Your task to perform on an android device: open sync settings in chrome Image 0: 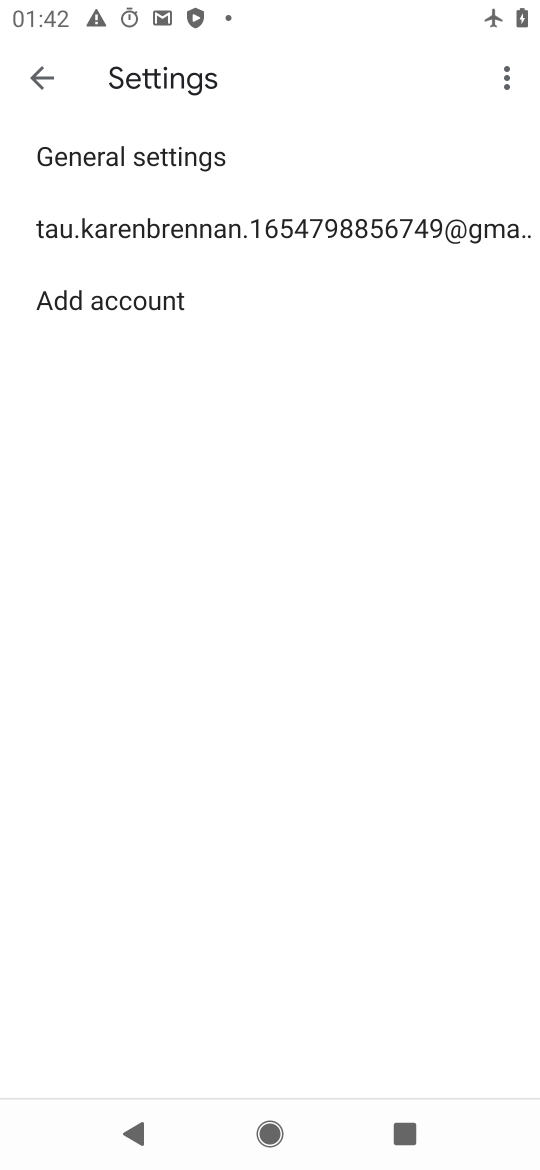
Step 0: press home button
Your task to perform on an android device: open sync settings in chrome Image 1: 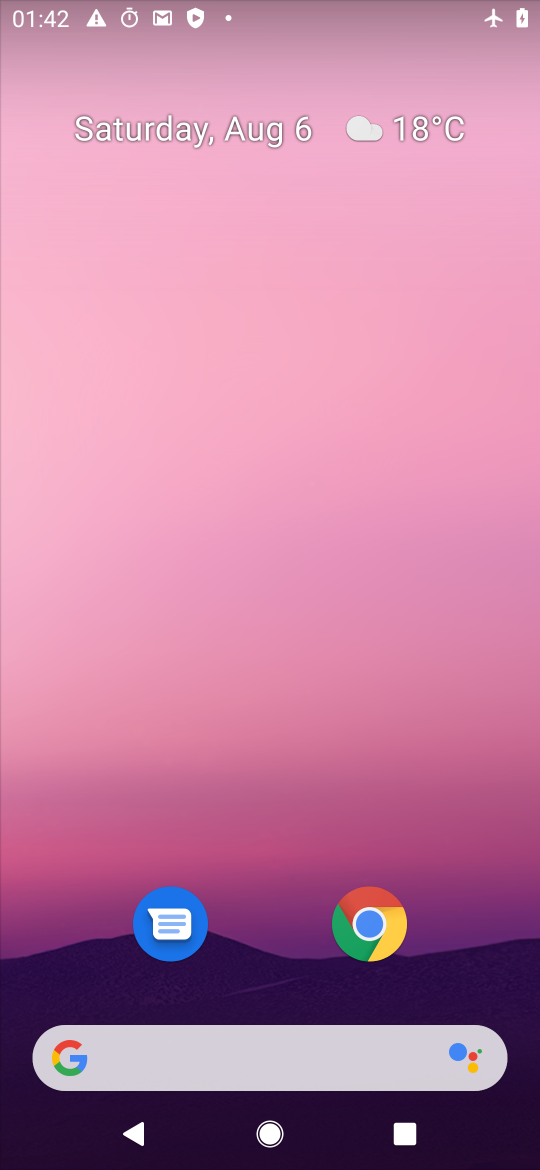
Step 1: drag from (246, 1070) to (306, 27)
Your task to perform on an android device: open sync settings in chrome Image 2: 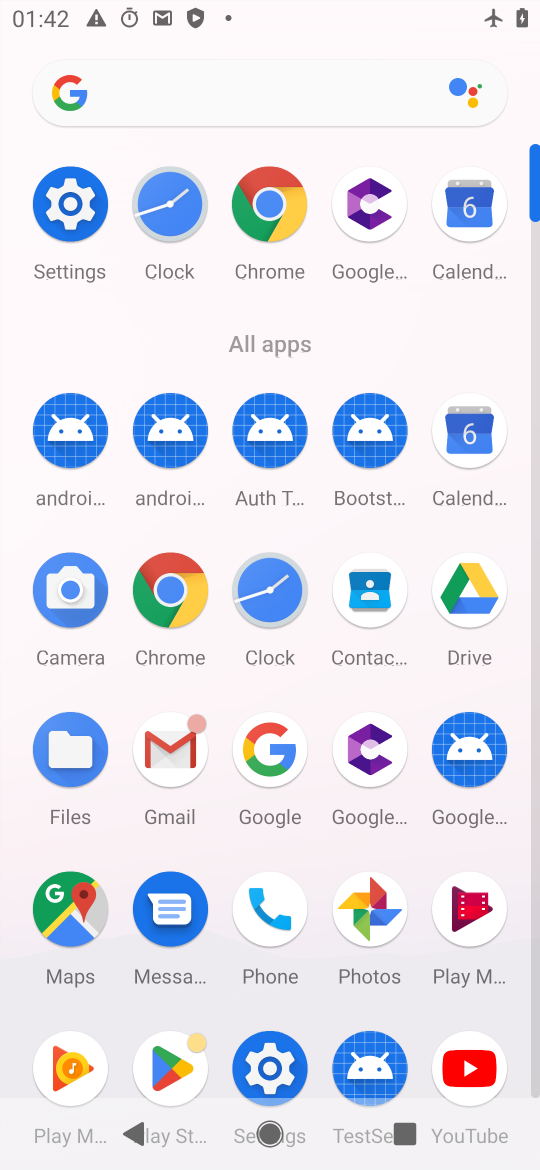
Step 2: click (162, 589)
Your task to perform on an android device: open sync settings in chrome Image 3: 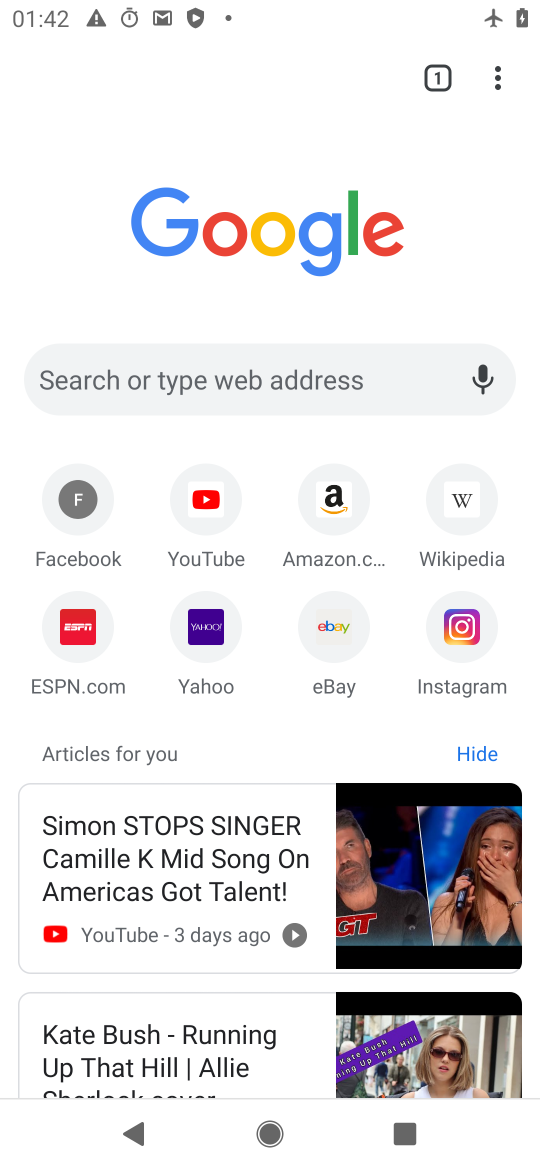
Step 3: click (497, 74)
Your task to perform on an android device: open sync settings in chrome Image 4: 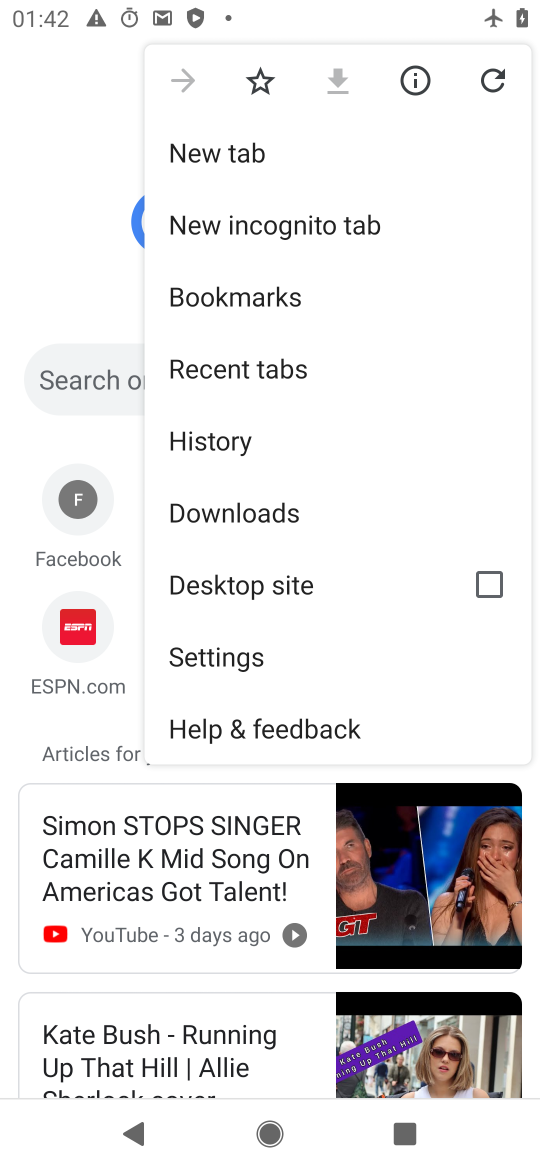
Step 4: click (230, 642)
Your task to perform on an android device: open sync settings in chrome Image 5: 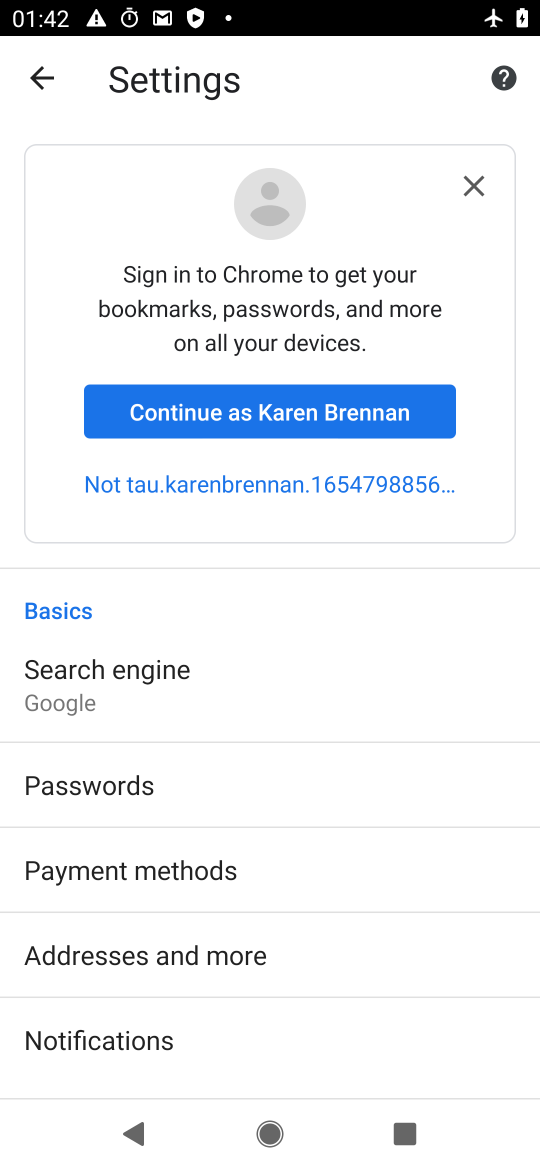
Step 5: drag from (321, 1028) to (258, 202)
Your task to perform on an android device: open sync settings in chrome Image 6: 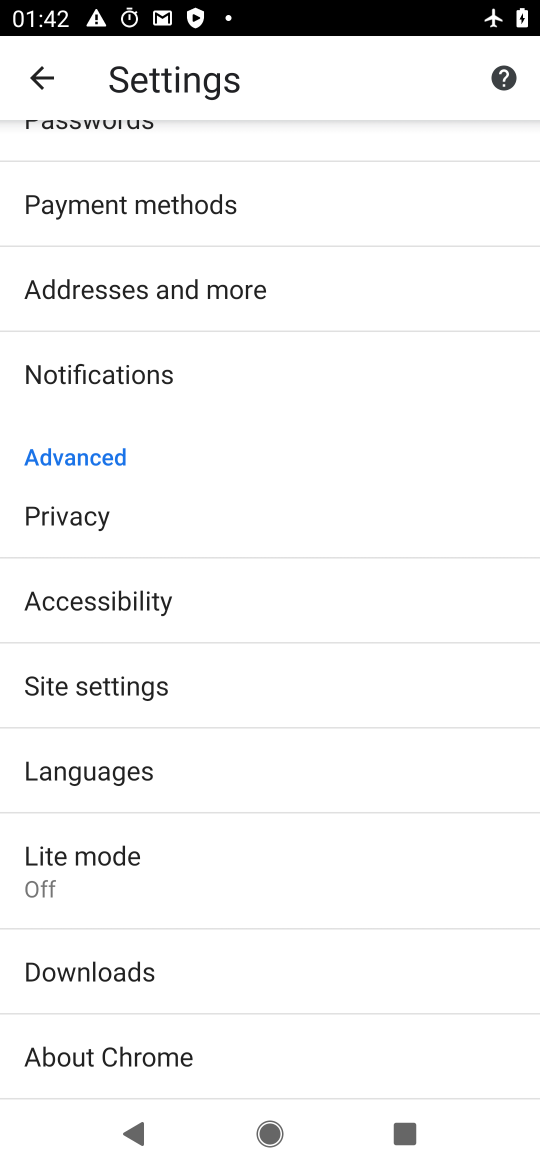
Step 6: click (143, 689)
Your task to perform on an android device: open sync settings in chrome Image 7: 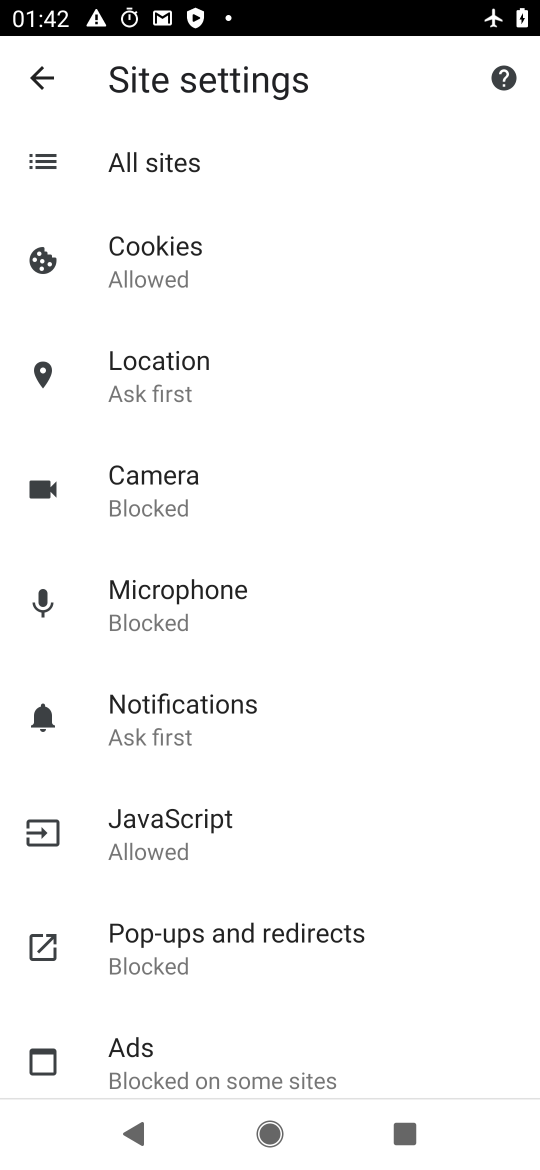
Step 7: drag from (413, 980) to (429, 496)
Your task to perform on an android device: open sync settings in chrome Image 8: 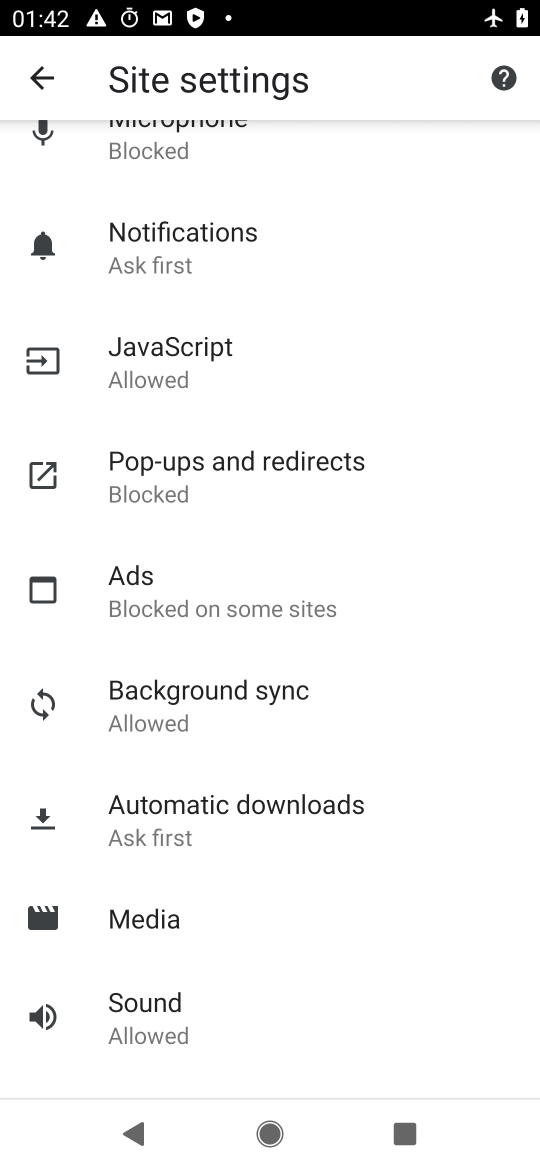
Step 8: click (288, 715)
Your task to perform on an android device: open sync settings in chrome Image 9: 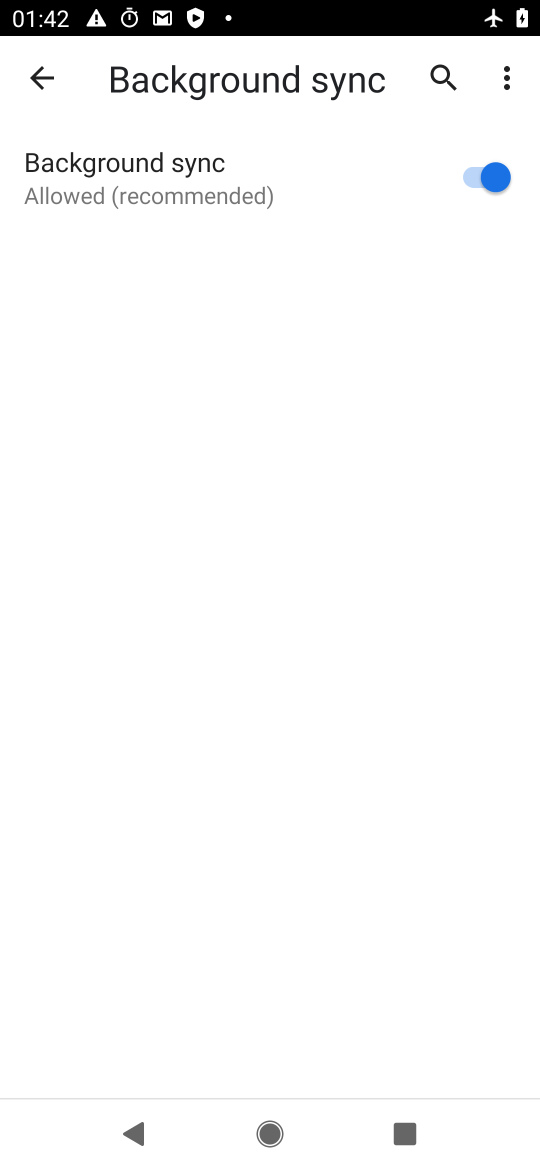
Step 9: task complete